Your task to perform on an android device: Go to location settings Image 0: 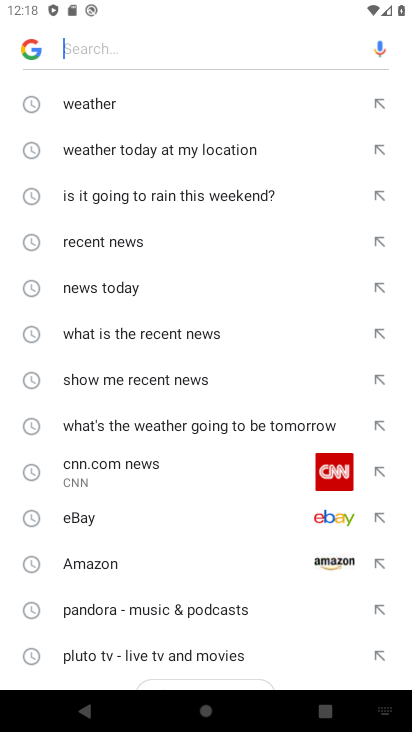
Step 0: press home button
Your task to perform on an android device: Go to location settings Image 1: 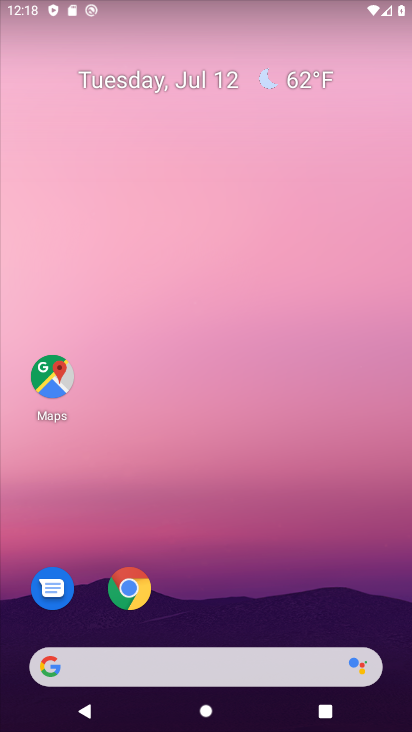
Step 1: drag from (130, 708) to (192, 0)
Your task to perform on an android device: Go to location settings Image 2: 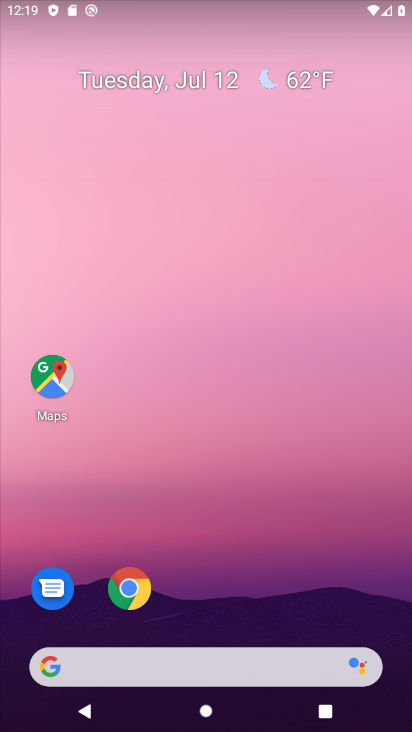
Step 2: drag from (184, 582) to (379, 54)
Your task to perform on an android device: Go to location settings Image 3: 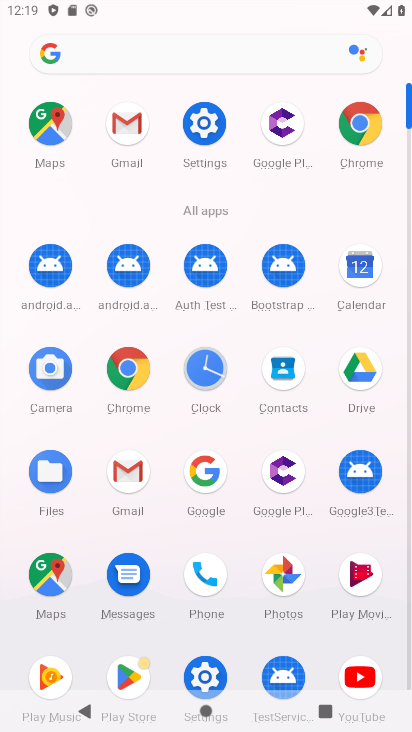
Step 3: click (197, 126)
Your task to perform on an android device: Go to location settings Image 4: 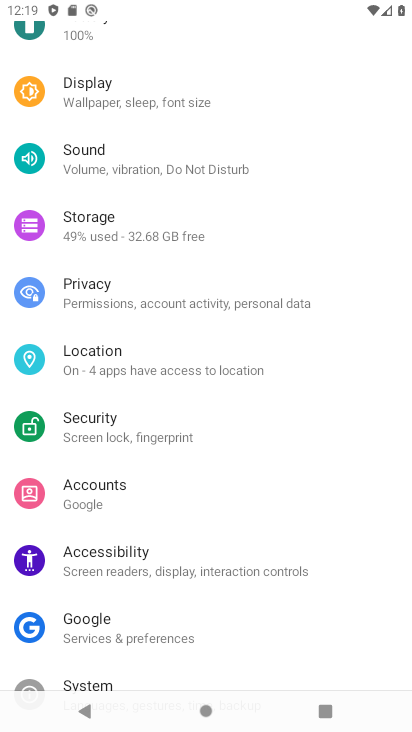
Step 4: click (147, 364)
Your task to perform on an android device: Go to location settings Image 5: 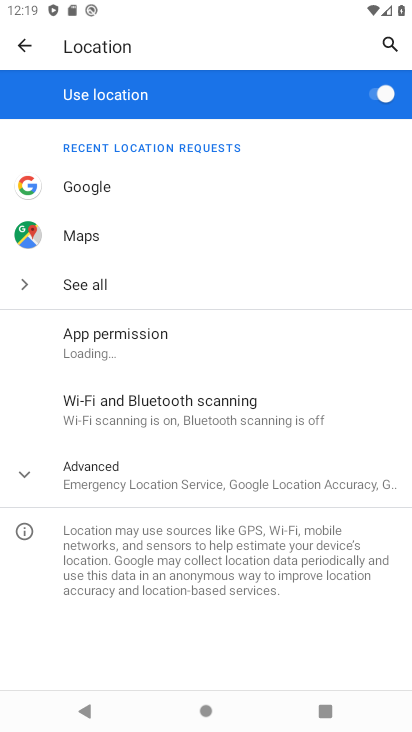
Step 5: task complete